Your task to perform on an android device: Open Google Chrome and open the bookmarks view Image 0: 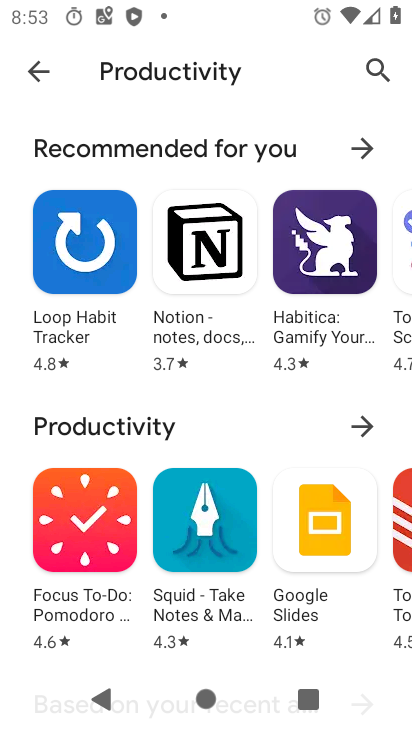
Step 0: press home button
Your task to perform on an android device: Open Google Chrome and open the bookmarks view Image 1: 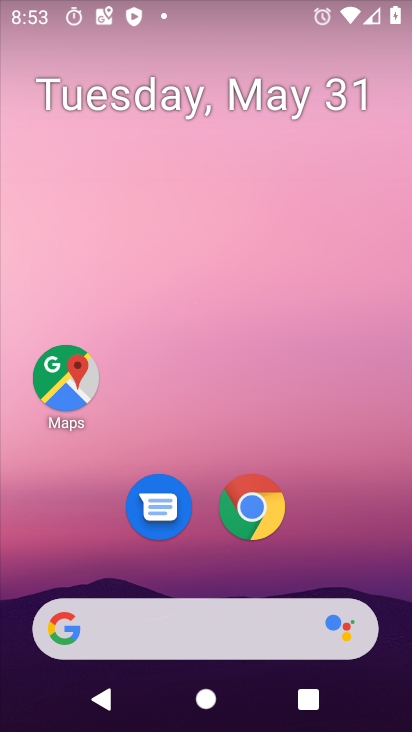
Step 1: click (257, 494)
Your task to perform on an android device: Open Google Chrome and open the bookmarks view Image 2: 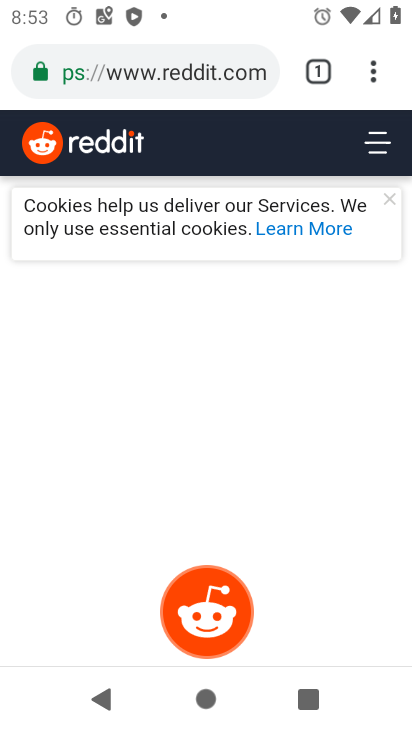
Step 2: click (372, 73)
Your task to perform on an android device: Open Google Chrome and open the bookmarks view Image 3: 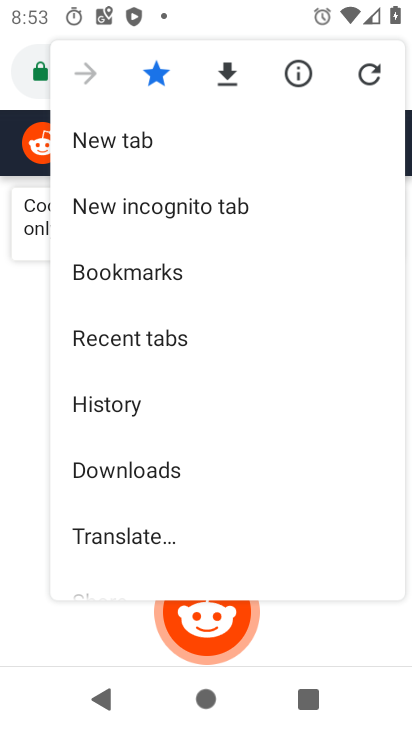
Step 3: click (125, 274)
Your task to perform on an android device: Open Google Chrome and open the bookmarks view Image 4: 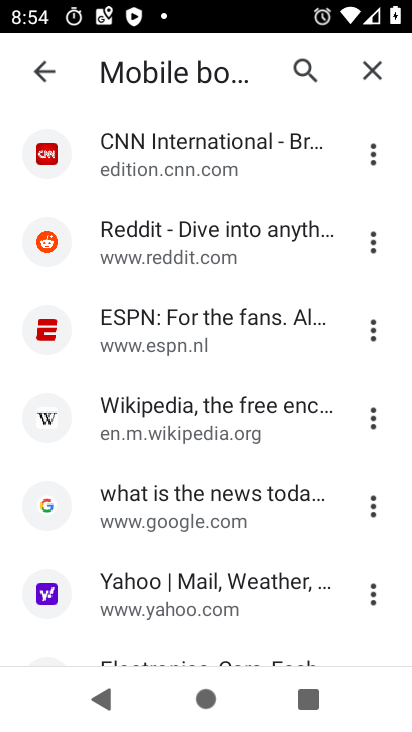
Step 4: task complete